Your task to perform on an android device: toggle location history Image 0: 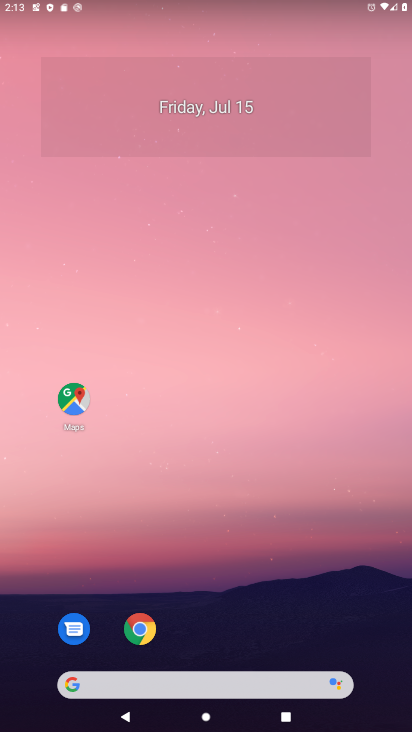
Step 0: drag from (339, 618) to (283, 195)
Your task to perform on an android device: toggle location history Image 1: 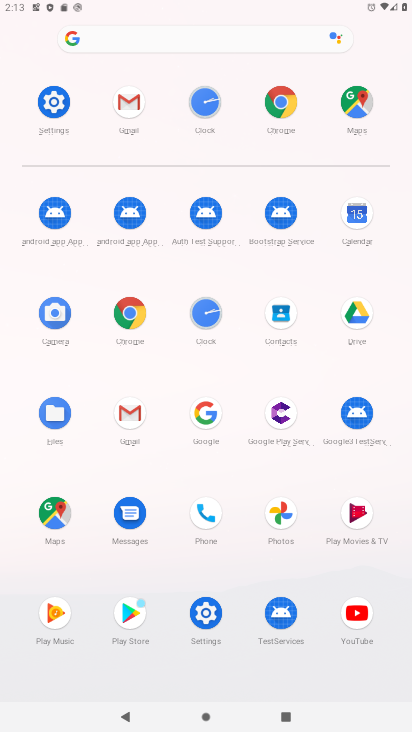
Step 1: click (52, 100)
Your task to perform on an android device: toggle location history Image 2: 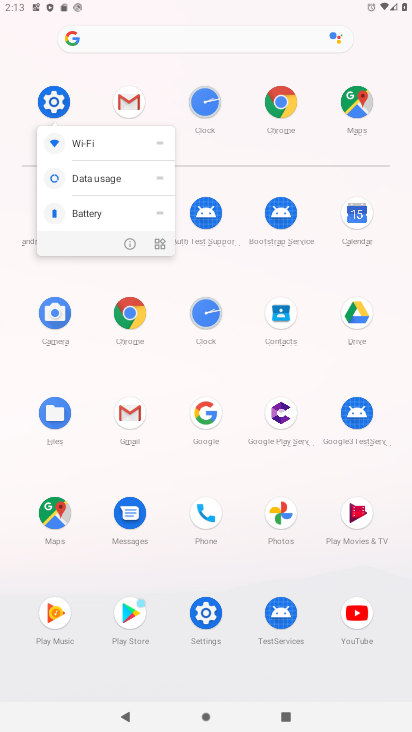
Step 2: click (52, 100)
Your task to perform on an android device: toggle location history Image 3: 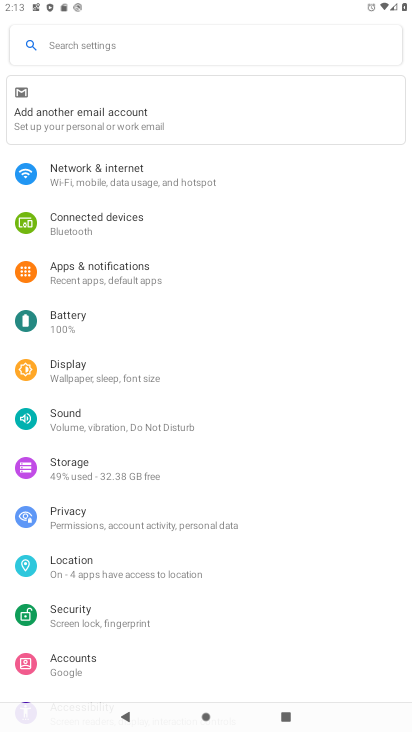
Step 3: click (80, 566)
Your task to perform on an android device: toggle location history Image 4: 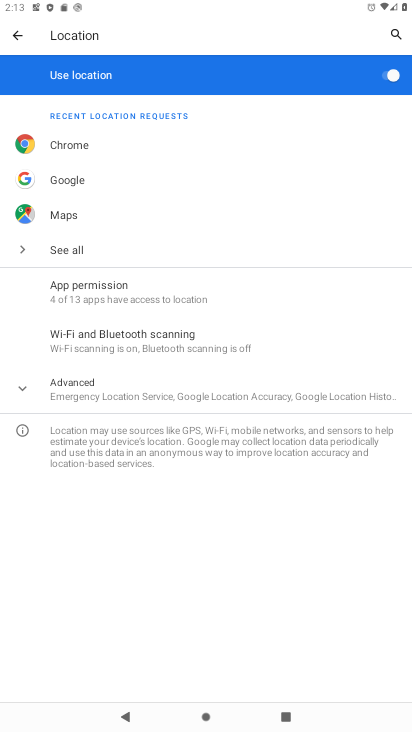
Step 4: click (125, 402)
Your task to perform on an android device: toggle location history Image 5: 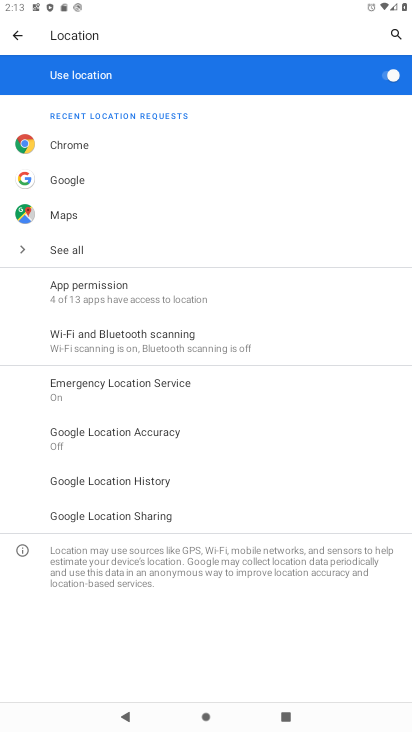
Step 5: click (146, 485)
Your task to perform on an android device: toggle location history Image 6: 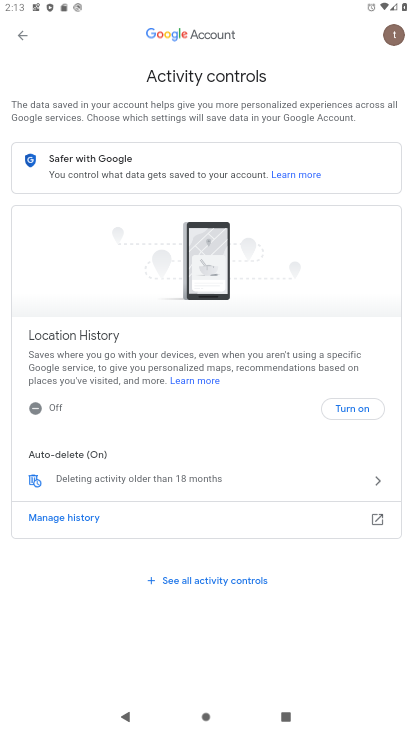
Step 6: click (375, 401)
Your task to perform on an android device: toggle location history Image 7: 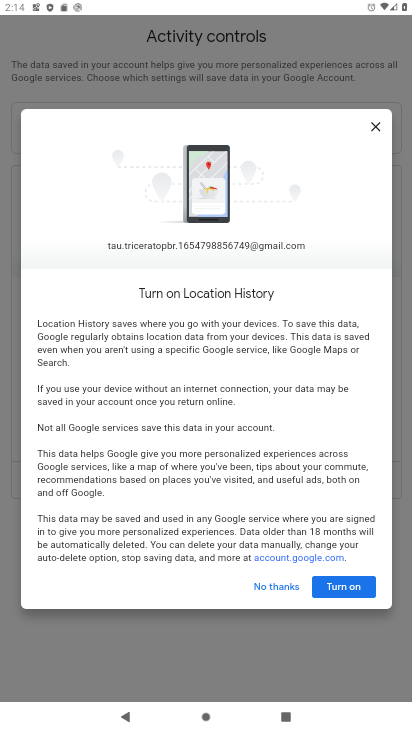
Step 7: click (346, 596)
Your task to perform on an android device: toggle location history Image 8: 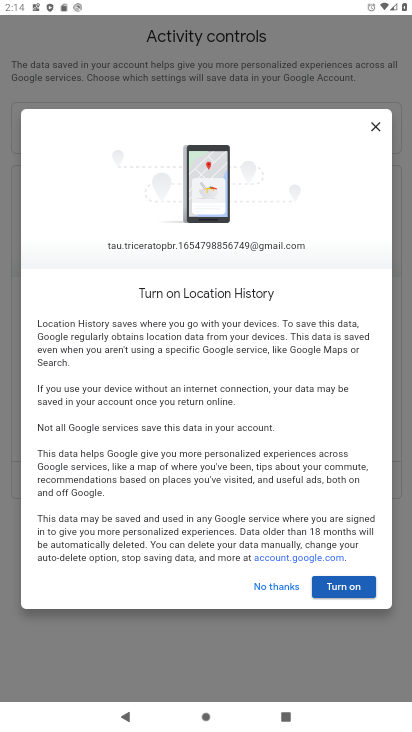
Step 8: click (346, 591)
Your task to perform on an android device: toggle location history Image 9: 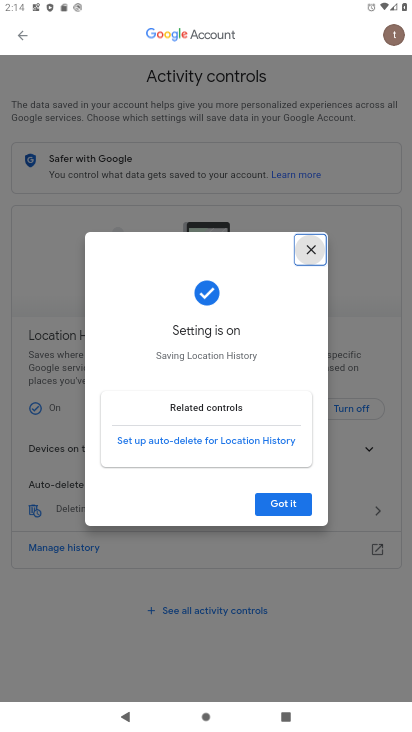
Step 9: task complete